Your task to perform on an android device: Go to Android settings Image 0: 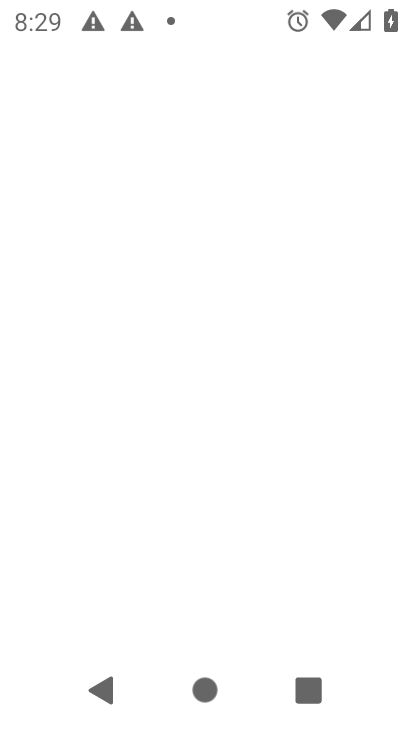
Step 0: press home button
Your task to perform on an android device: Go to Android settings Image 1: 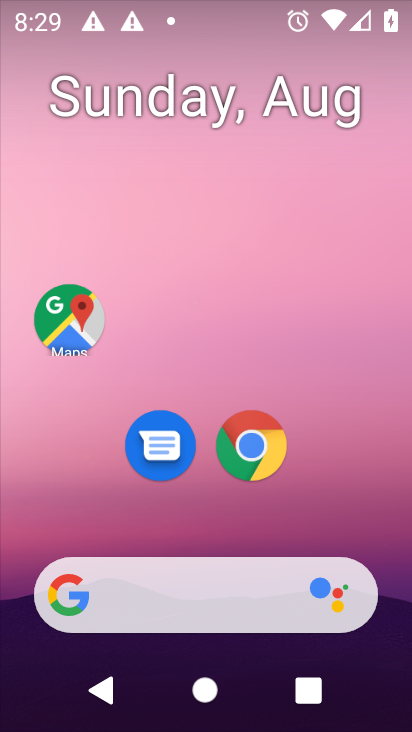
Step 1: drag from (195, 523) to (232, 40)
Your task to perform on an android device: Go to Android settings Image 2: 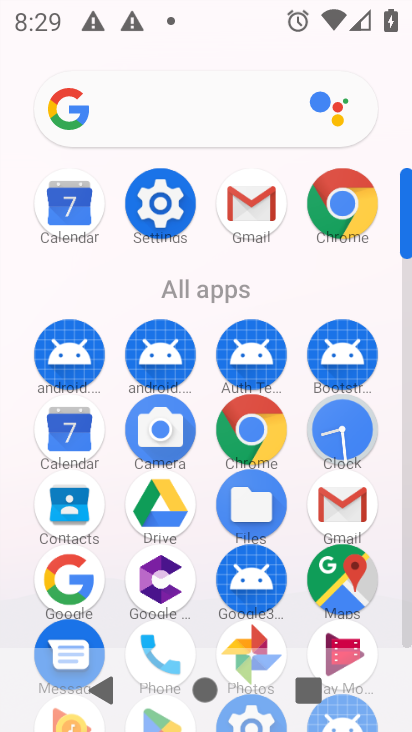
Step 2: click (159, 197)
Your task to perform on an android device: Go to Android settings Image 3: 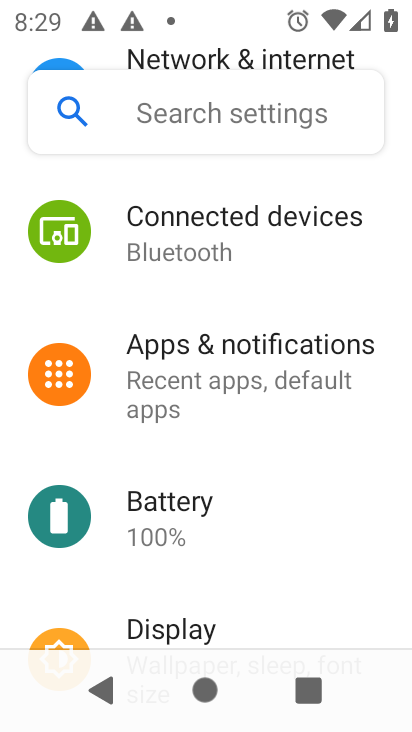
Step 3: drag from (248, 615) to (242, 178)
Your task to perform on an android device: Go to Android settings Image 4: 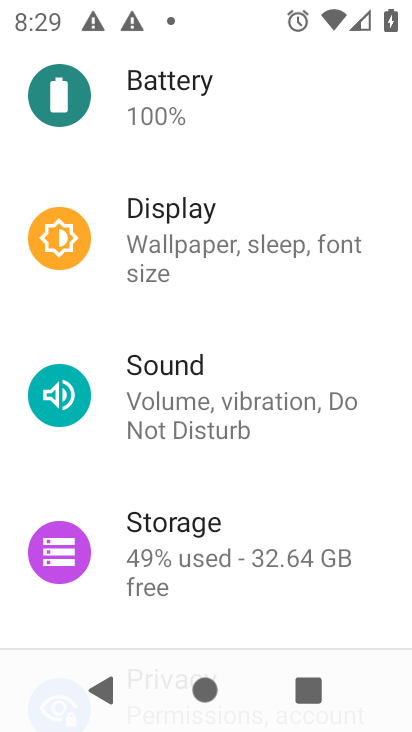
Step 4: drag from (218, 587) to (208, 111)
Your task to perform on an android device: Go to Android settings Image 5: 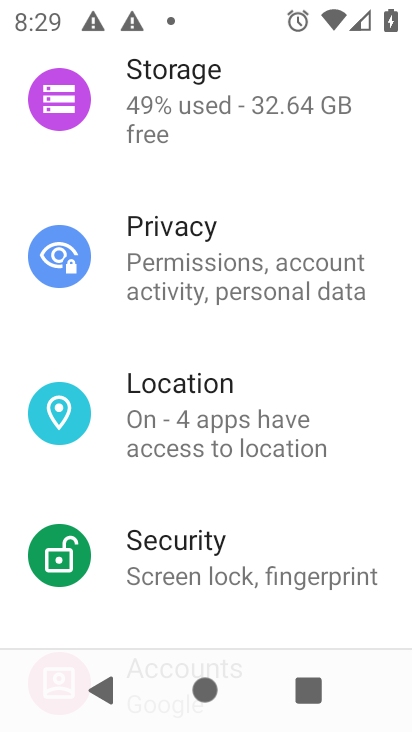
Step 5: drag from (234, 591) to (230, 155)
Your task to perform on an android device: Go to Android settings Image 6: 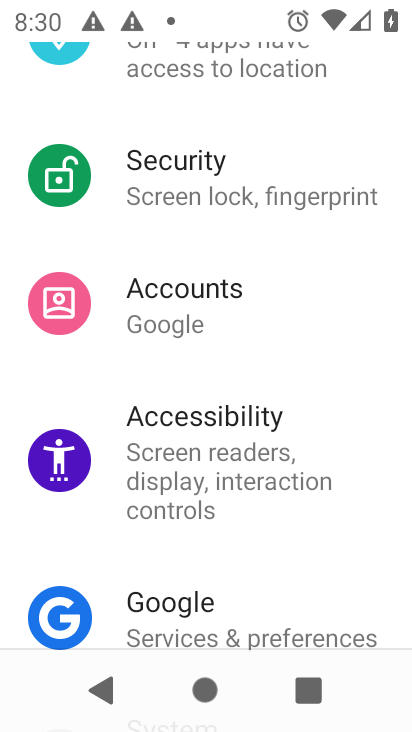
Step 6: drag from (232, 613) to (252, 209)
Your task to perform on an android device: Go to Android settings Image 7: 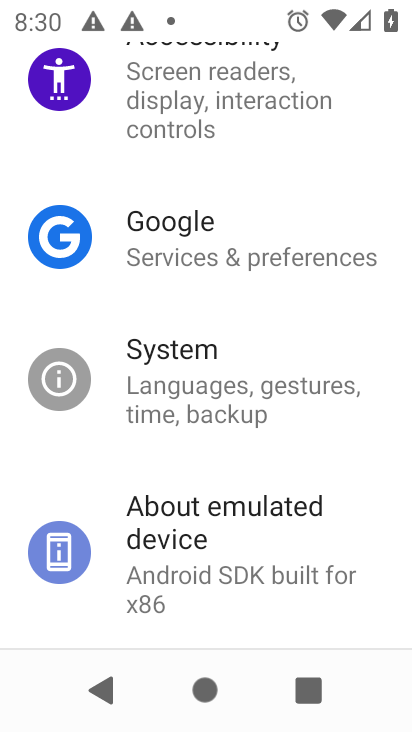
Step 7: click (232, 559)
Your task to perform on an android device: Go to Android settings Image 8: 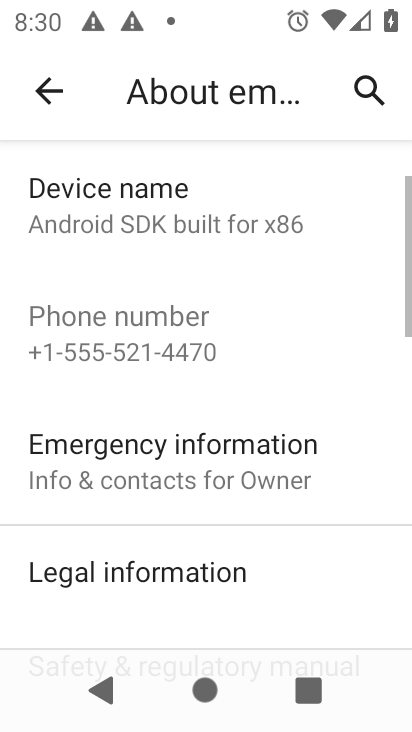
Step 8: drag from (197, 576) to (218, 88)
Your task to perform on an android device: Go to Android settings Image 9: 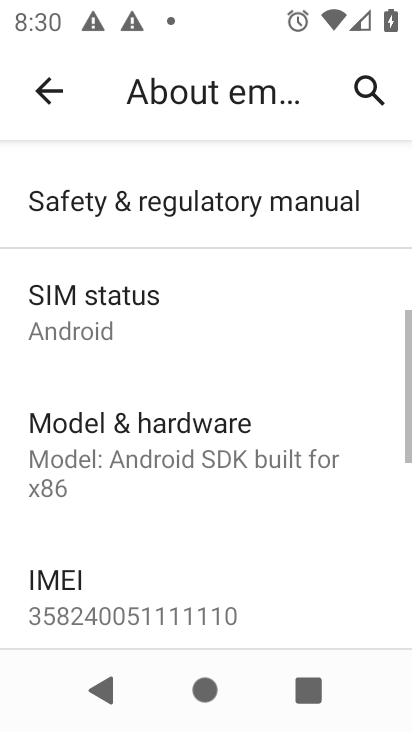
Step 9: drag from (175, 257) to (182, 562)
Your task to perform on an android device: Go to Android settings Image 10: 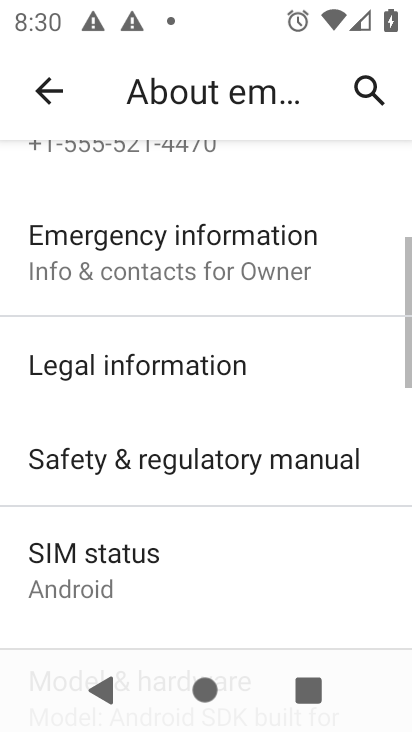
Step 10: drag from (186, 263) to (202, 501)
Your task to perform on an android device: Go to Android settings Image 11: 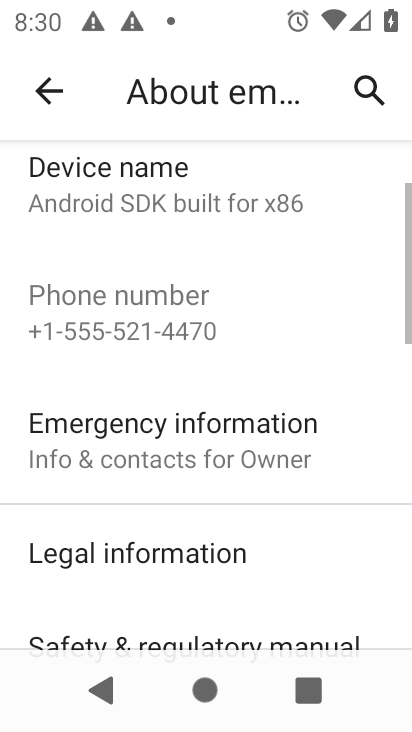
Step 11: drag from (189, 558) to (215, 175)
Your task to perform on an android device: Go to Android settings Image 12: 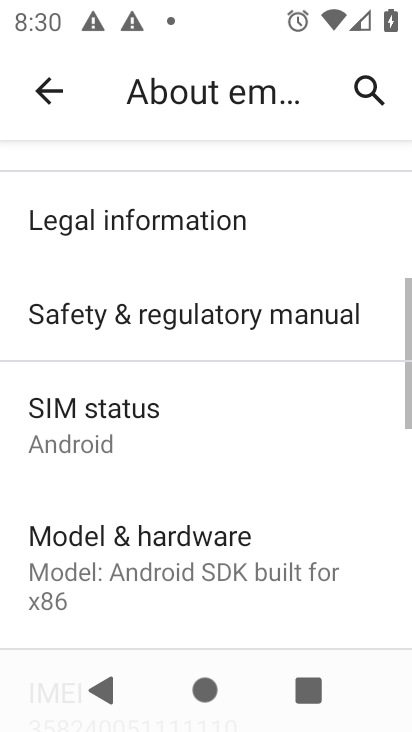
Step 12: drag from (190, 603) to (208, 144)
Your task to perform on an android device: Go to Android settings Image 13: 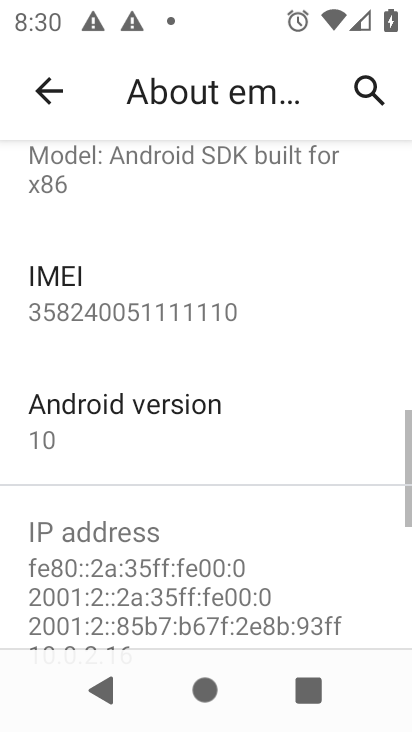
Step 13: click (110, 422)
Your task to perform on an android device: Go to Android settings Image 14: 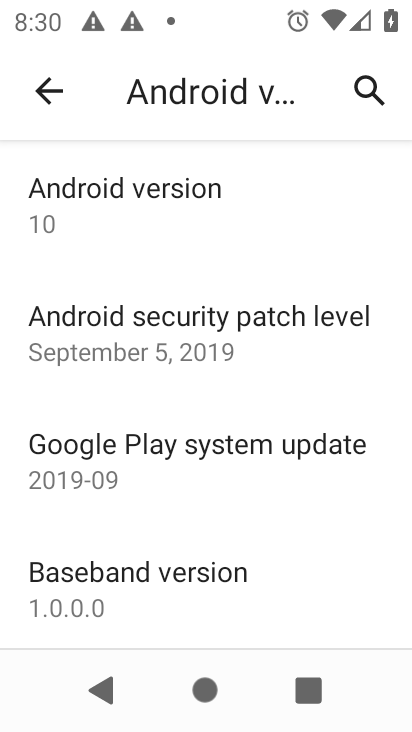
Step 14: task complete